Your task to perform on an android device: Open eBay Image 0: 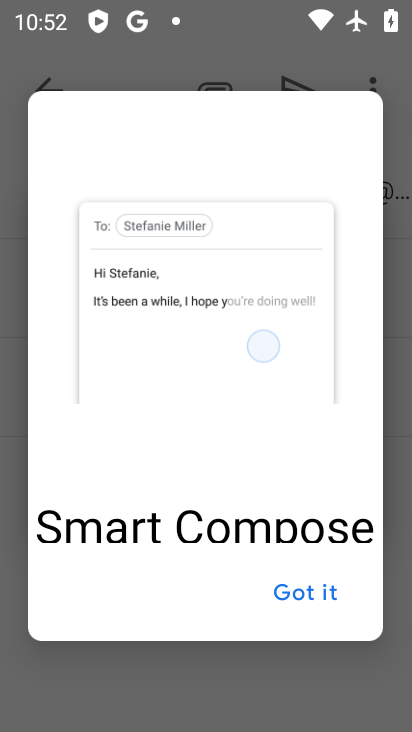
Step 0: press home button
Your task to perform on an android device: Open eBay Image 1: 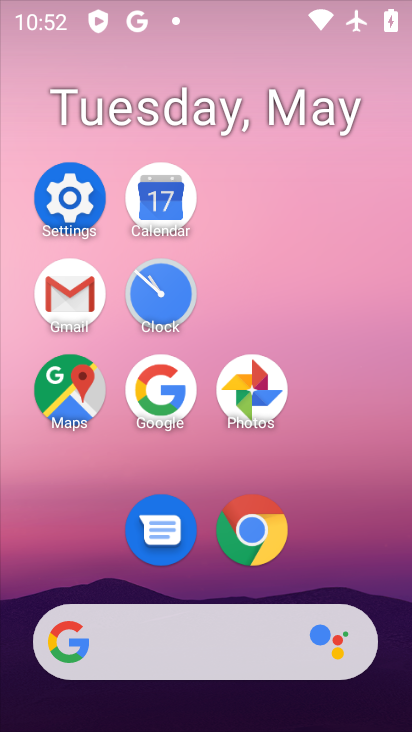
Step 1: click (265, 522)
Your task to perform on an android device: Open eBay Image 2: 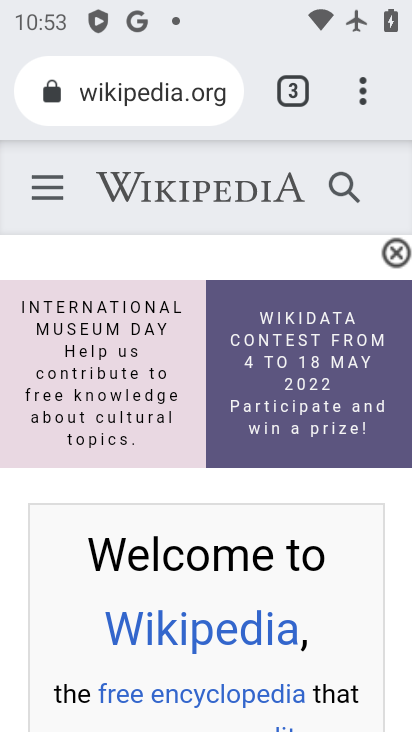
Step 2: click (327, 85)
Your task to perform on an android device: Open eBay Image 3: 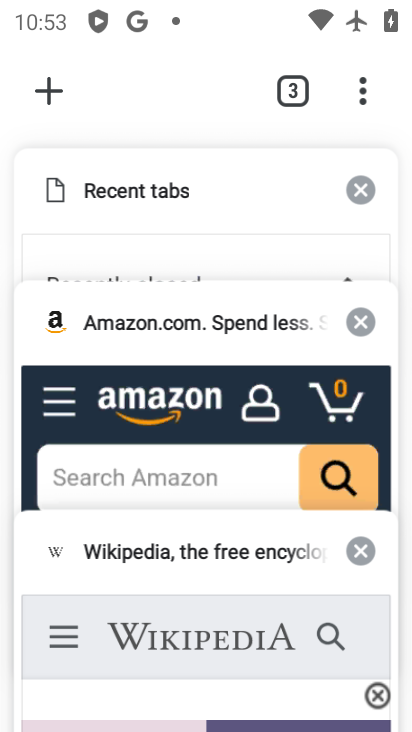
Step 3: click (50, 107)
Your task to perform on an android device: Open eBay Image 4: 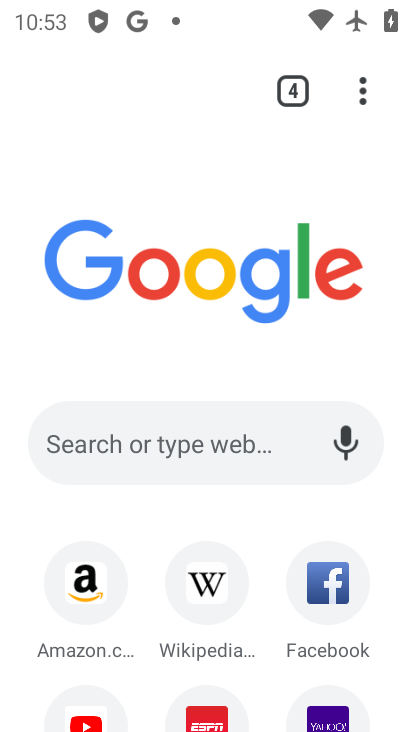
Step 4: click (125, 430)
Your task to perform on an android device: Open eBay Image 5: 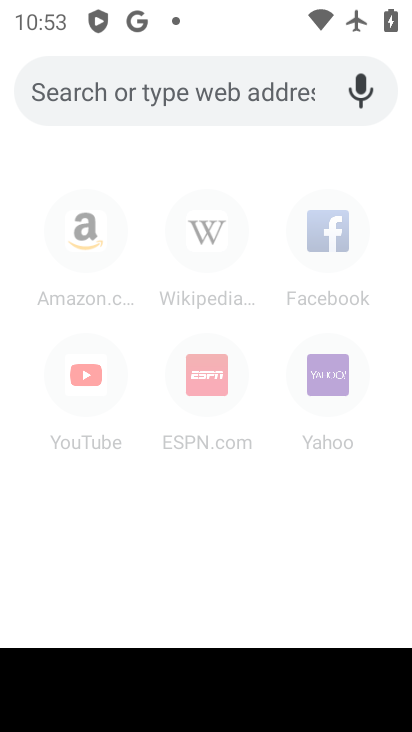
Step 5: type "ebay"
Your task to perform on an android device: Open eBay Image 6: 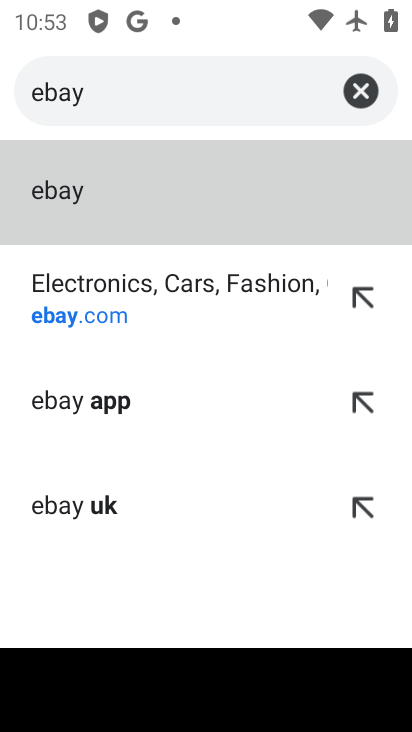
Step 6: click (155, 299)
Your task to perform on an android device: Open eBay Image 7: 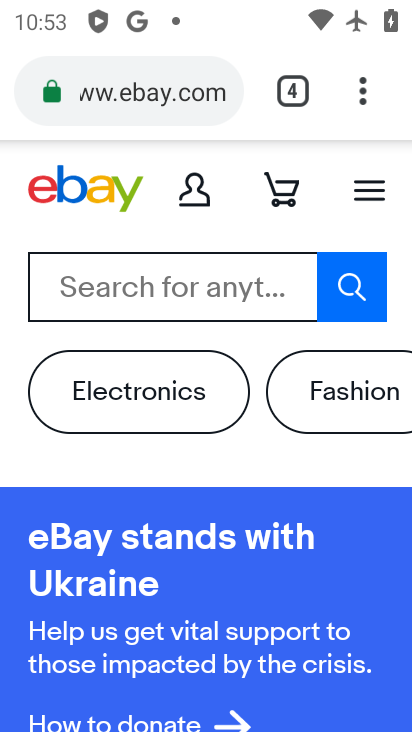
Step 7: task complete